Your task to perform on an android device: clear history in the chrome app Image 0: 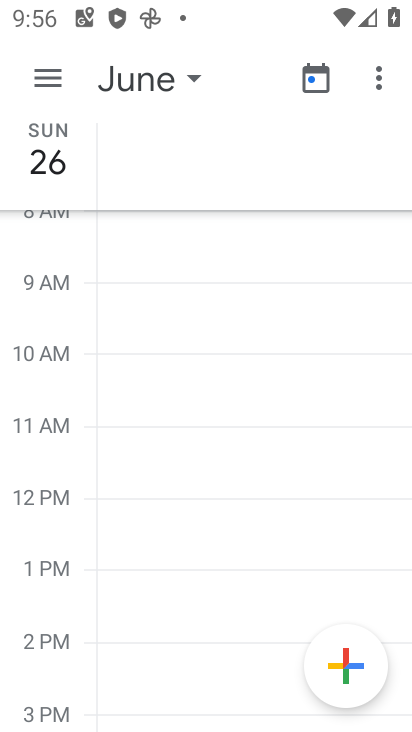
Step 0: press home button
Your task to perform on an android device: clear history in the chrome app Image 1: 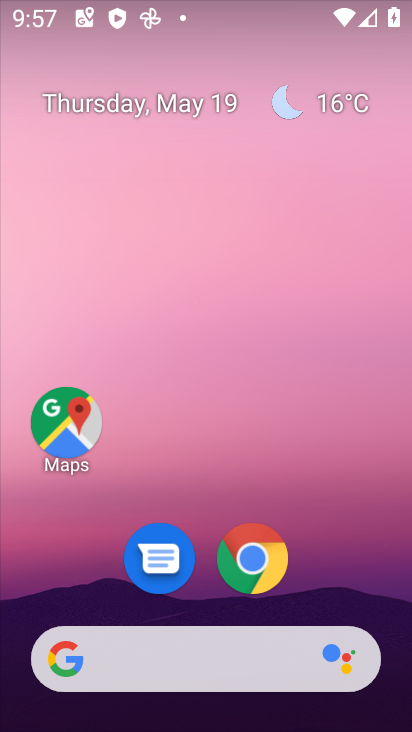
Step 1: click (251, 560)
Your task to perform on an android device: clear history in the chrome app Image 2: 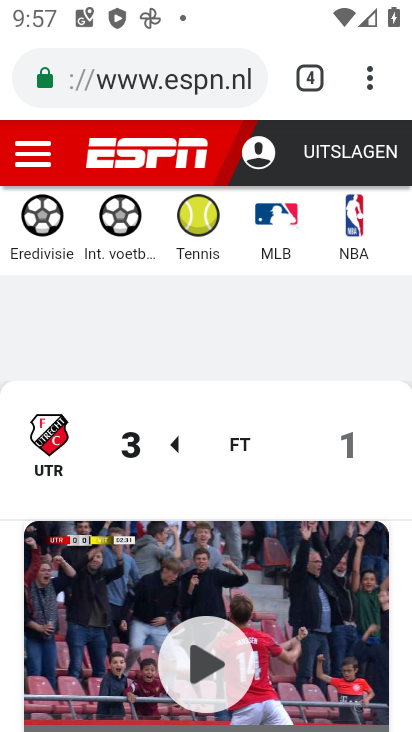
Step 2: click (369, 85)
Your task to perform on an android device: clear history in the chrome app Image 3: 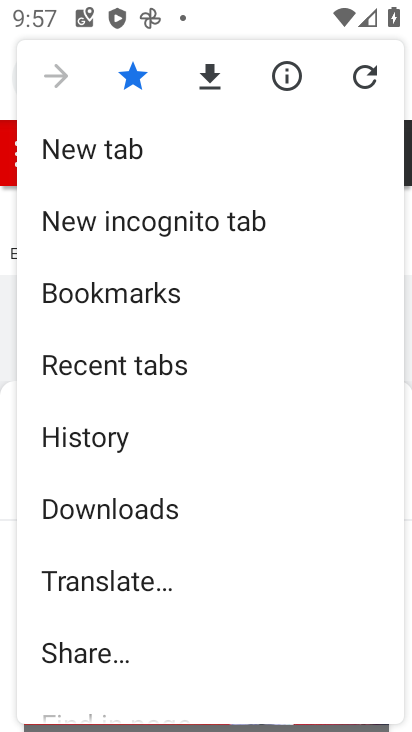
Step 3: click (114, 434)
Your task to perform on an android device: clear history in the chrome app Image 4: 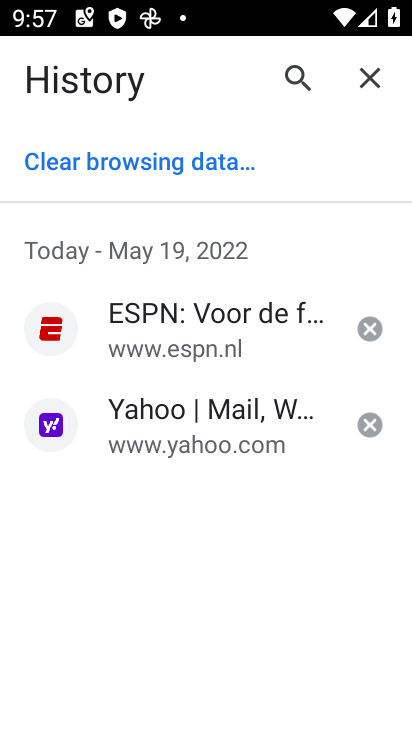
Step 4: click (101, 156)
Your task to perform on an android device: clear history in the chrome app Image 5: 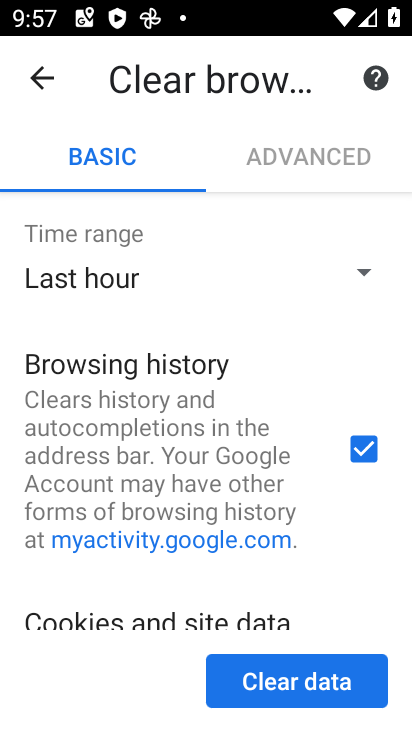
Step 5: drag from (273, 529) to (279, 156)
Your task to perform on an android device: clear history in the chrome app Image 6: 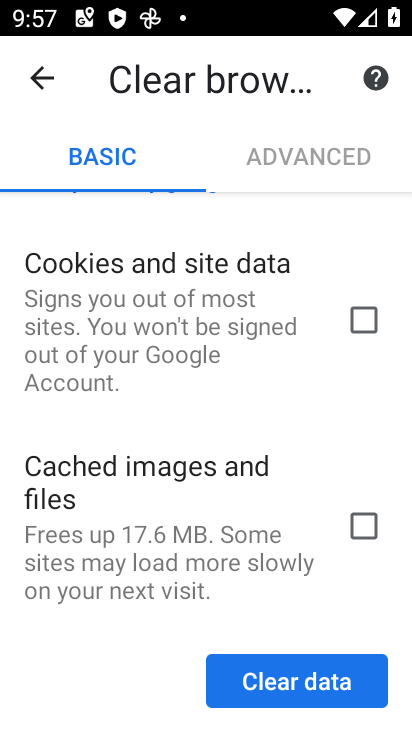
Step 6: click (337, 683)
Your task to perform on an android device: clear history in the chrome app Image 7: 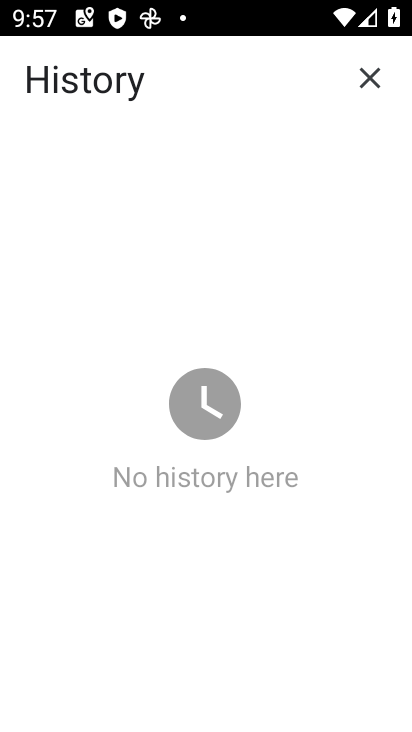
Step 7: task complete